Your task to perform on an android device: What's the weather going to be this weekend? Image 0: 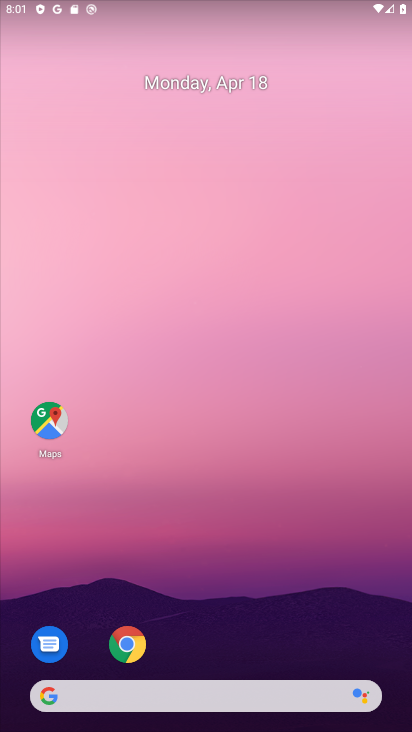
Step 0: click (140, 650)
Your task to perform on an android device: What's the weather going to be this weekend? Image 1: 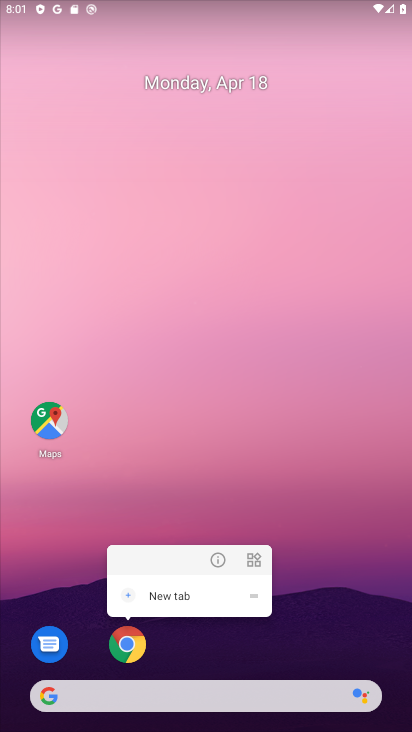
Step 1: click (215, 564)
Your task to perform on an android device: What's the weather going to be this weekend? Image 2: 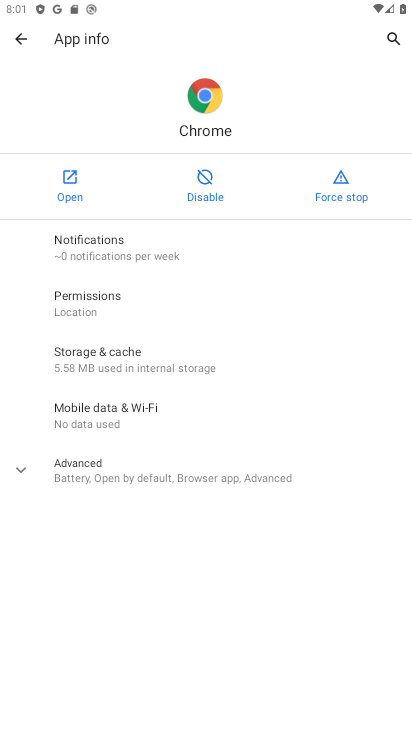
Step 2: press back button
Your task to perform on an android device: What's the weather going to be this weekend? Image 3: 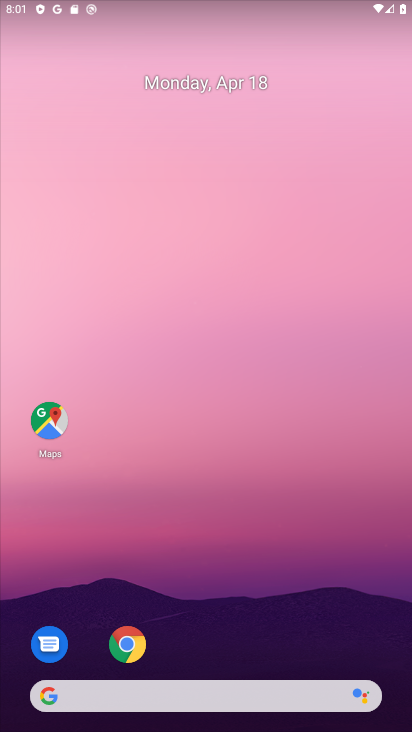
Step 3: drag from (35, 272) to (380, 290)
Your task to perform on an android device: What's the weather going to be this weekend? Image 4: 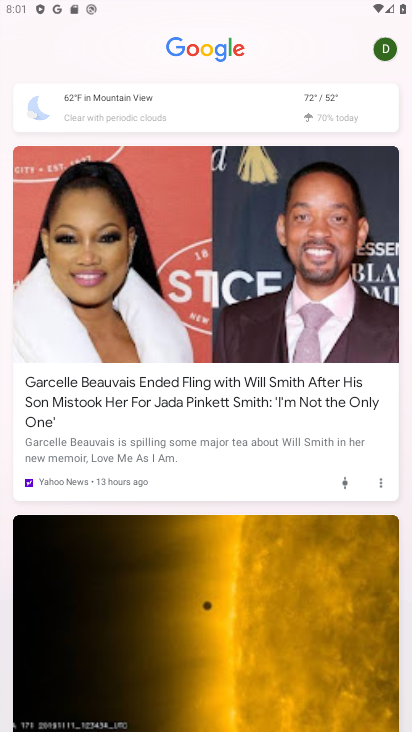
Step 4: click (57, 112)
Your task to perform on an android device: What's the weather going to be this weekend? Image 5: 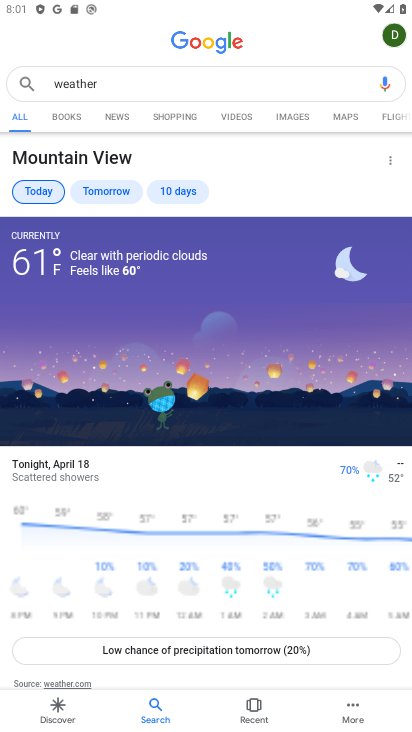
Step 5: click (169, 197)
Your task to perform on an android device: What's the weather going to be this weekend? Image 6: 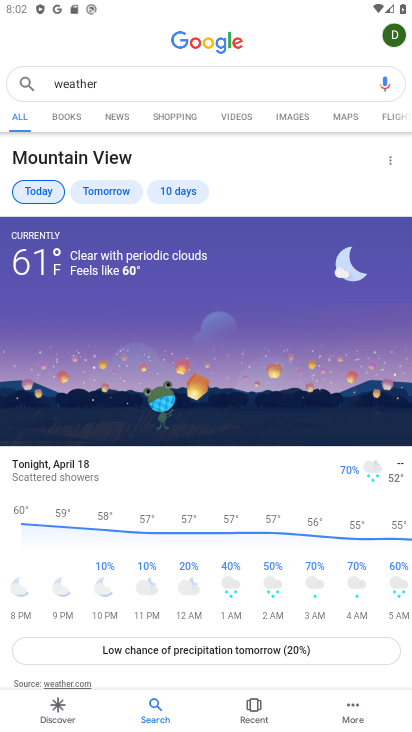
Step 6: click (194, 195)
Your task to perform on an android device: What's the weather going to be this weekend? Image 7: 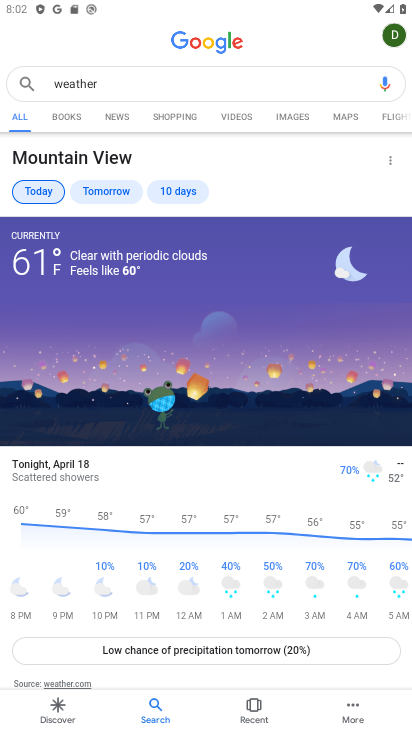
Step 7: click (169, 200)
Your task to perform on an android device: What's the weather going to be this weekend? Image 8: 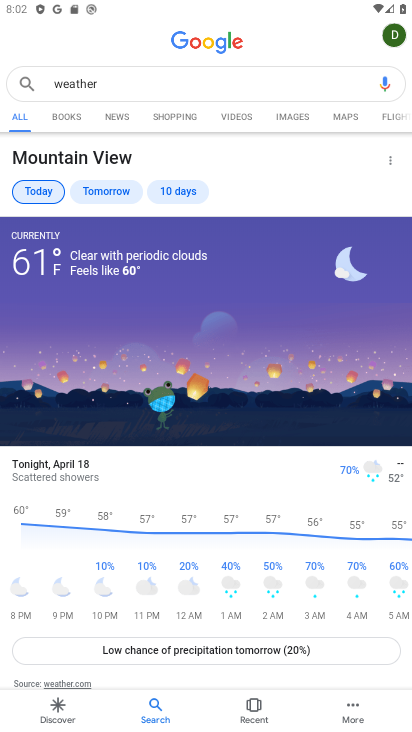
Step 8: click (163, 190)
Your task to perform on an android device: What's the weather going to be this weekend? Image 9: 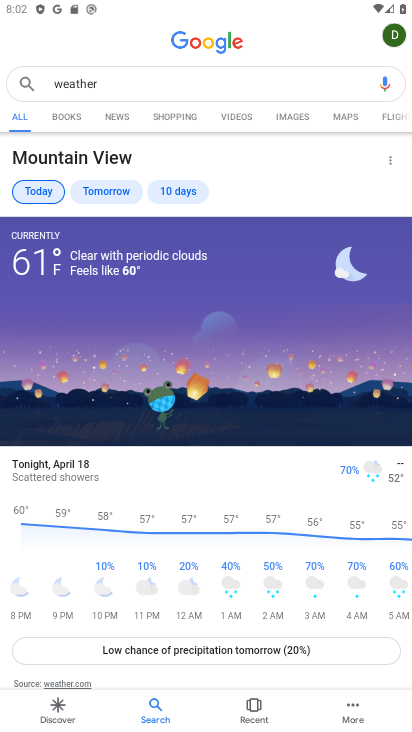
Step 9: click (192, 191)
Your task to perform on an android device: What's the weather going to be this weekend? Image 10: 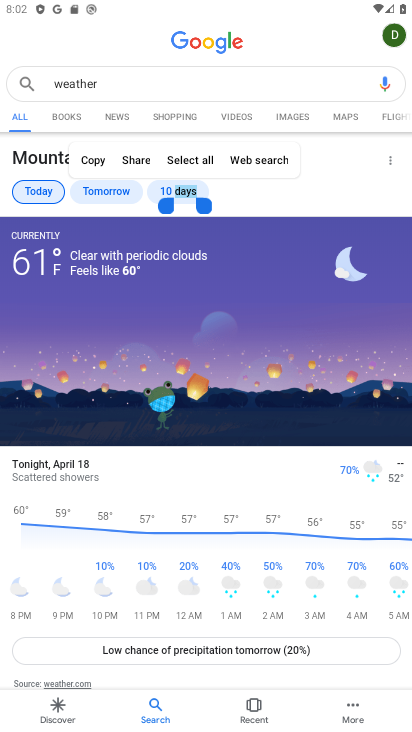
Step 10: click (197, 195)
Your task to perform on an android device: What's the weather going to be this weekend? Image 11: 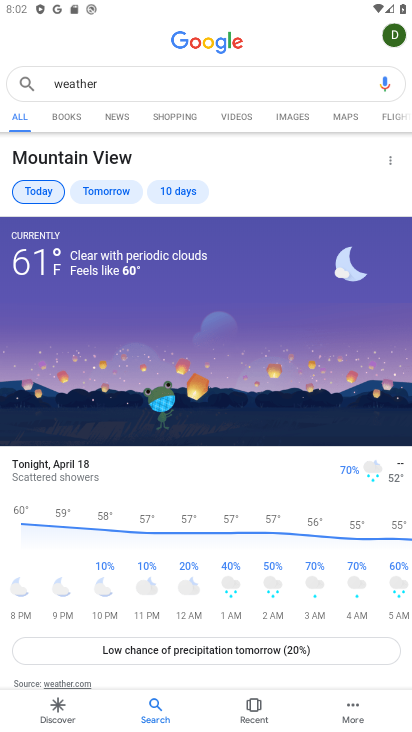
Step 11: drag from (156, 483) to (161, 49)
Your task to perform on an android device: What's the weather going to be this weekend? Image 12: 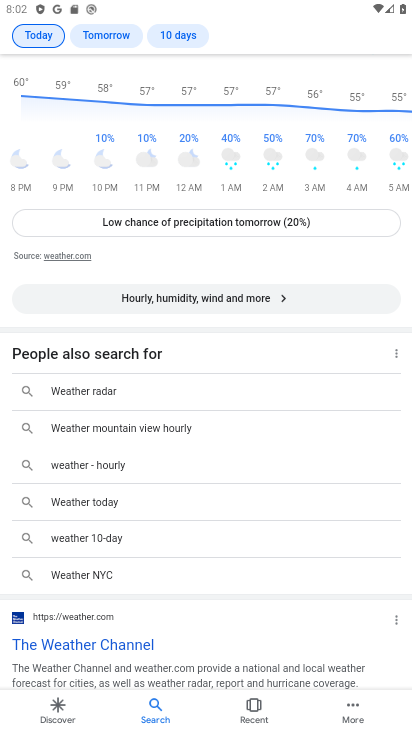
Step 12: click (108, 537)
Your task to perform on an android device: What's the weather going to be this weekend? Image 13: 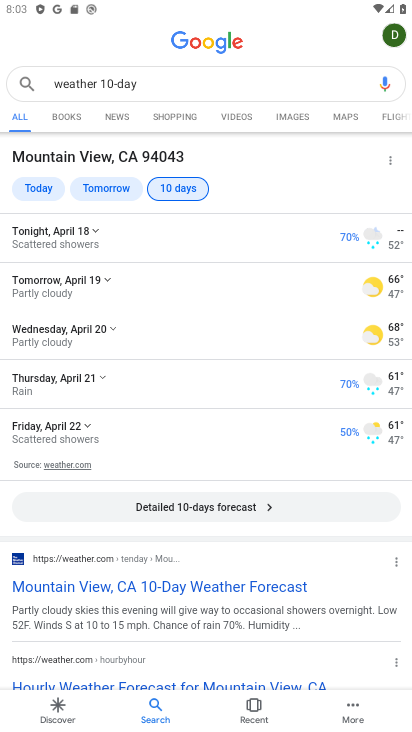
Step 13: task complete